Your task to perform on an android device: change timer sound Image 0: 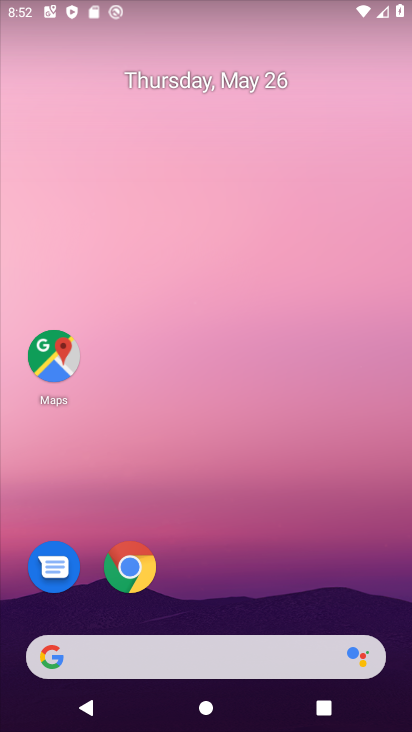
Step 0: press home button
Your task to perform on an android device: change timer sound Image 1: 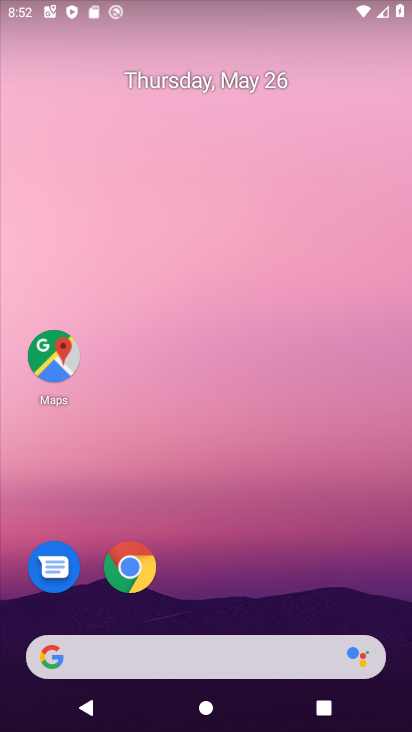
Step 1: drag from (178, 666) to (337, 137)
Your task to perform on an android device: change timer sound Image 2: 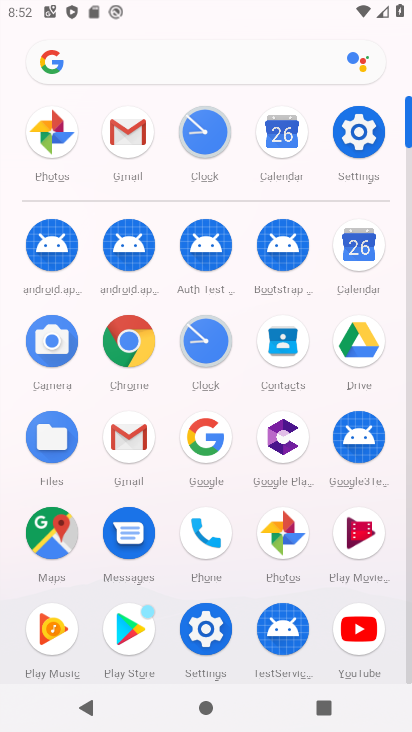
Step 2: click (208, 142)
Your task to perform on an android device: change timer sound Image 3: 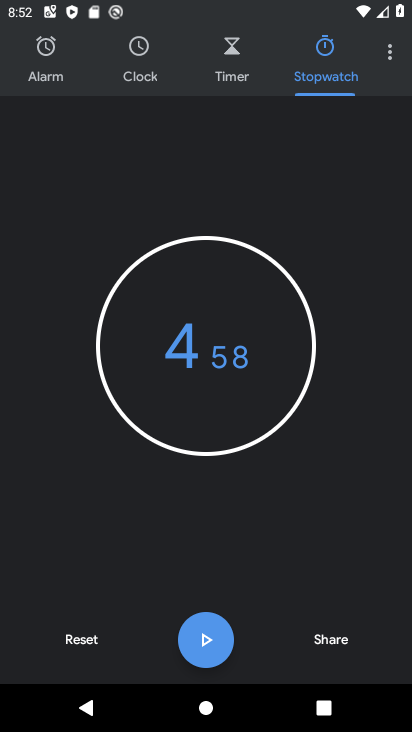
Step 3: click (388, 57)
Your task to perform on an android device: change timer sound Image 4: 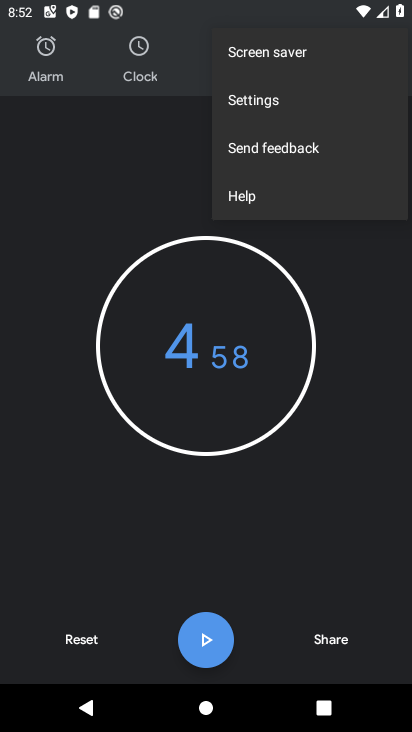
Step 4: click (265, 107)
Your task to perform on an android device: change timer sound Image 5: 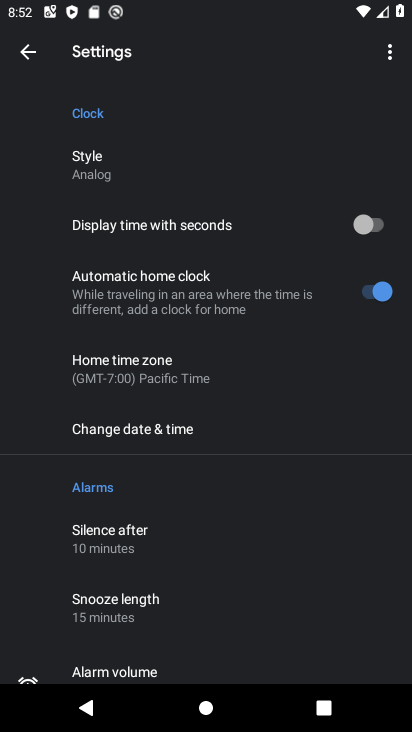
Step 5: drag from (211, 573) to (340, 52)
Your task to perform on an android device: change timer sound Image 6: 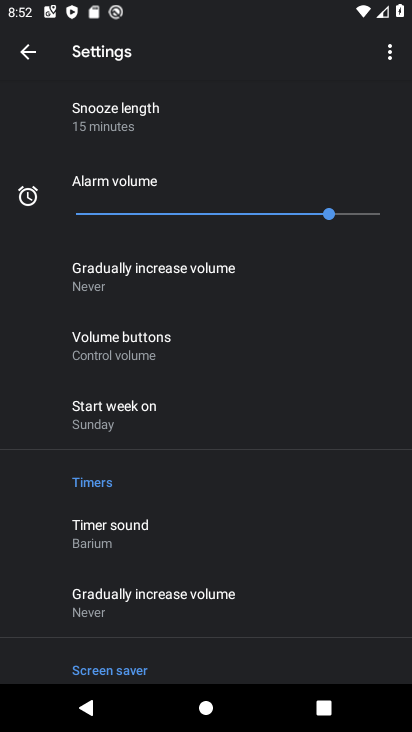
Step 6: click (105, 536)
Your task to perform on an android device: change timer sound Image 7: 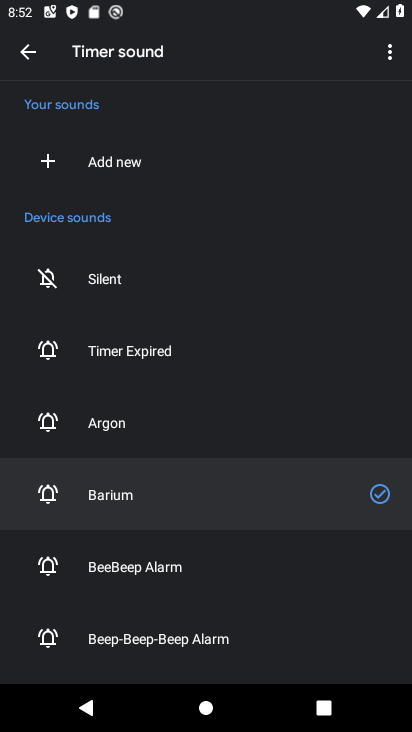
Step 7: click (100, 427)
Your task to perform on an android device: change timer sound Image 8: 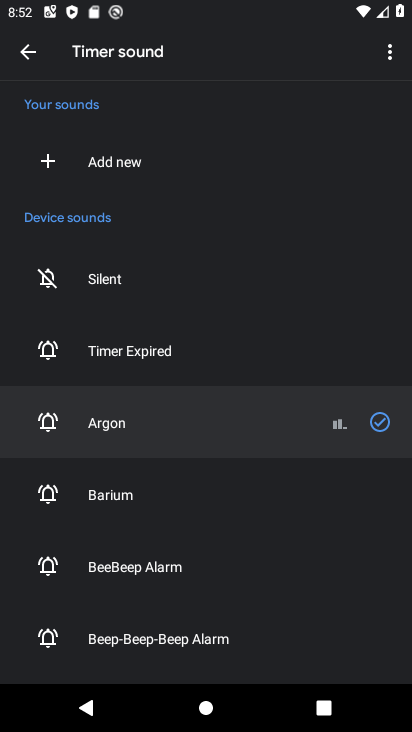
Step 8: task complete